Your task to perform on an android device: manage bookmarks in the chrome app Image 0: 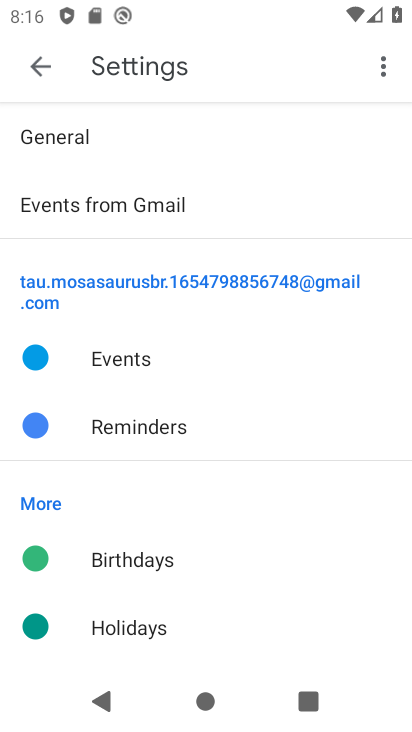
Step 0: press home button
Your task to perform on an android device: manage bookmarks in the chrome app Image 1: 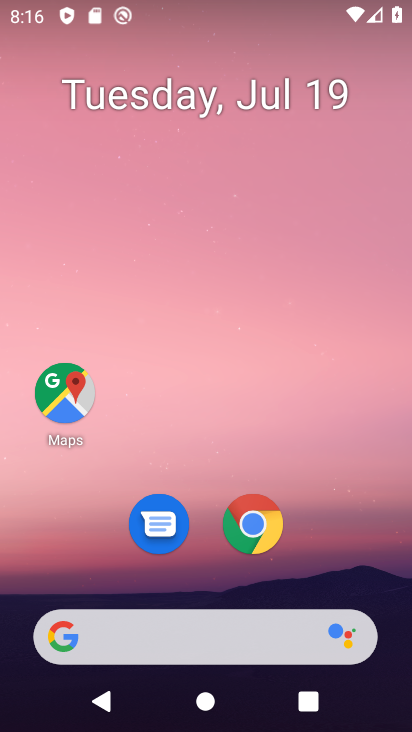
Step 1: click (247, 523)
Your task to perform on an android device: manage bookmarks in the chrome app Image 2: 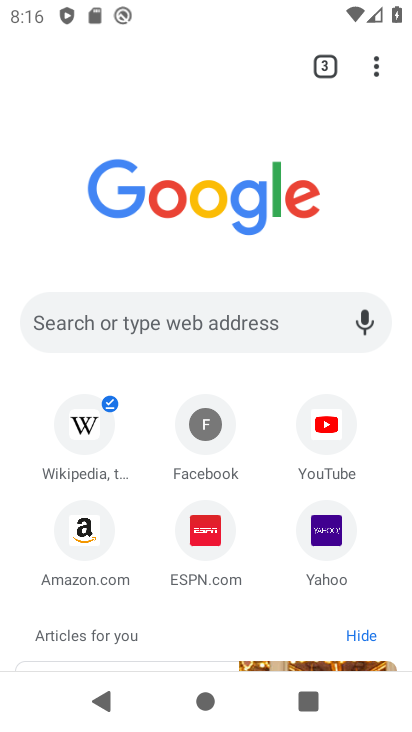
Step 2: drag from (379, 71) to (272, 254)
Your task to perform on an android device: manage bookmarks in the chrome app Image 3: 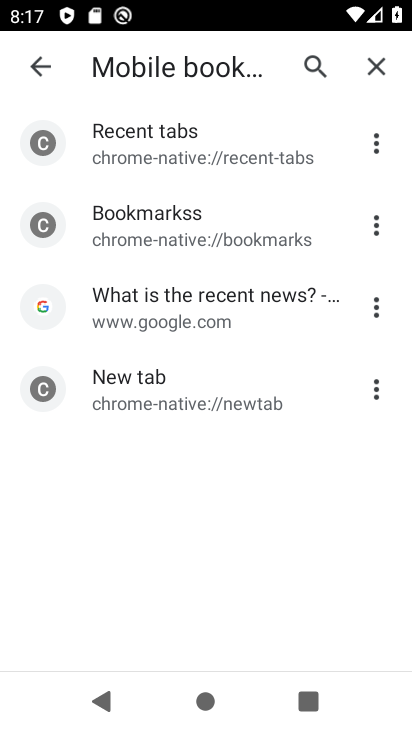
Step 3: click (375, 133)
Your task to perform on an android device: manage bookmarks in the chrome app Image 4: 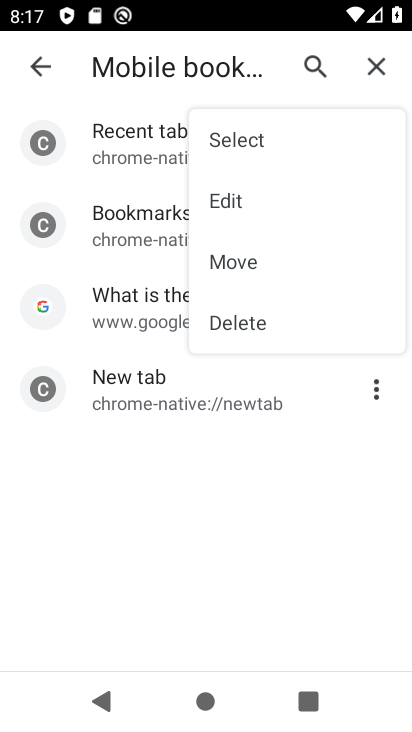
Step 4: click (251, 266)
Your task to perform on an android device: manage bookmarks in the chrome app Image 5: 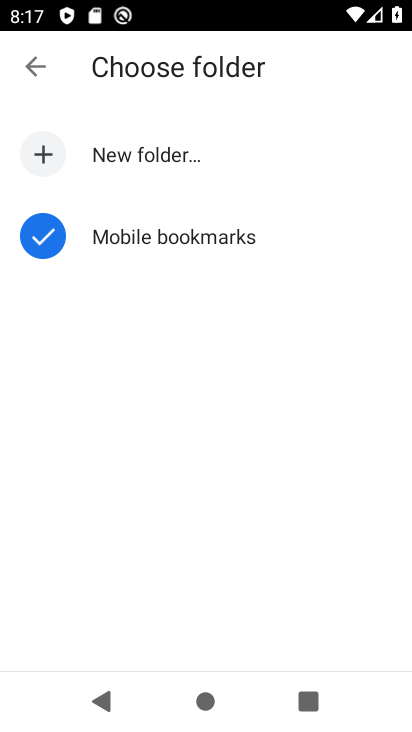
Step 5: click (165, 151)
Your task to perform on an android device: manage bookmarks in the chrome app Image 6: 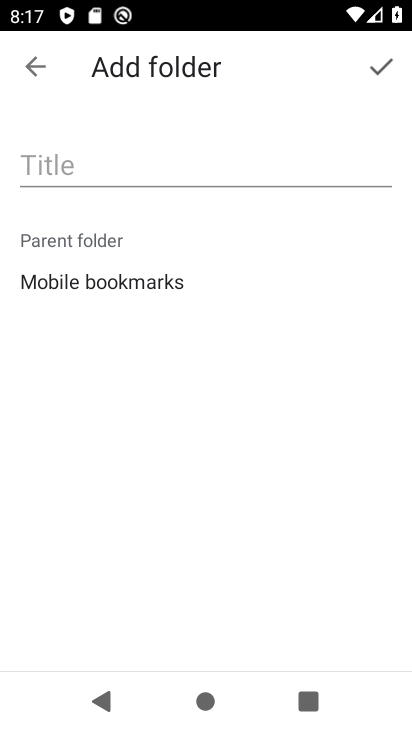
Step 6: click (90, 173)
Your task to perform on an android device: manage bookmarks in the chrome app Image 7: 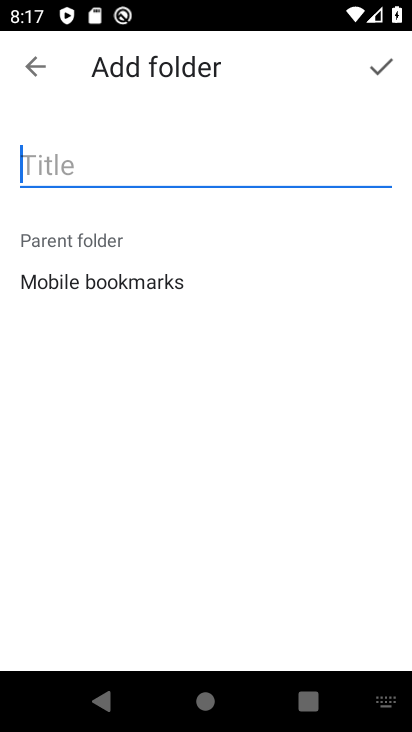
Step 7: type "ghuyyu"
Your task to perform on an android device: manage bookmarks in the chrome app Image 8: 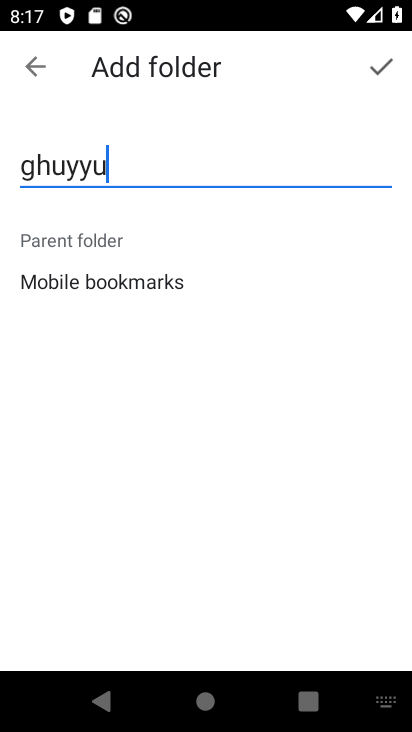
Step 8: click (378, 67)
Your task to perform on an android device: manage bookmarks in the chrome app Image 9: 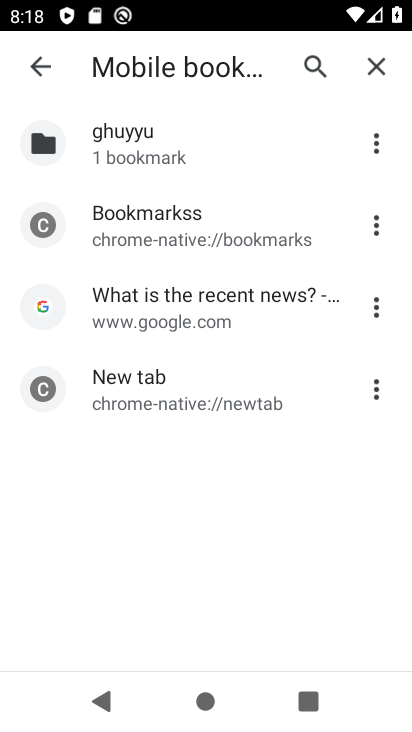
Step 9: task complete